Your task to perform on an android device: Turn off the flashlight Image 0: 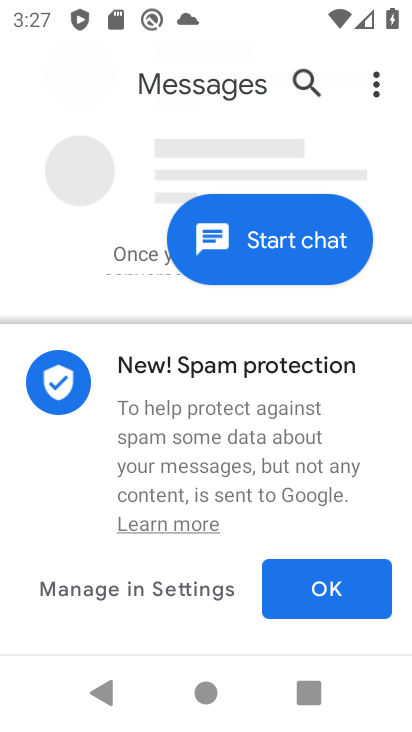
Step 0: press home button
Your task to perform on an android device: Turn off the flashlight Image 1: 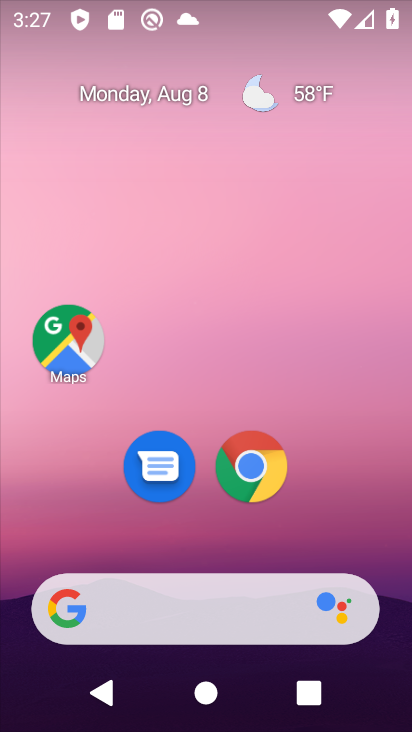
Step 1: drag from (173, 578) to (158, 124)
Your task to perform on an android device: Turn off the flashlight Image 2: 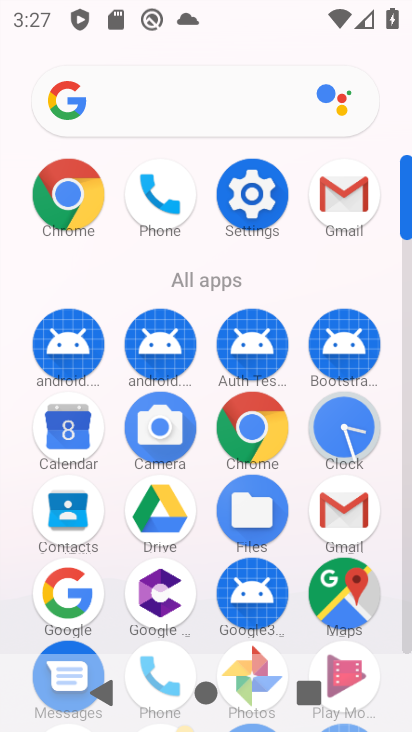
Step 2: click (241, 178)
Your task to perform on an android device: Turn off the flashlight Image 3: 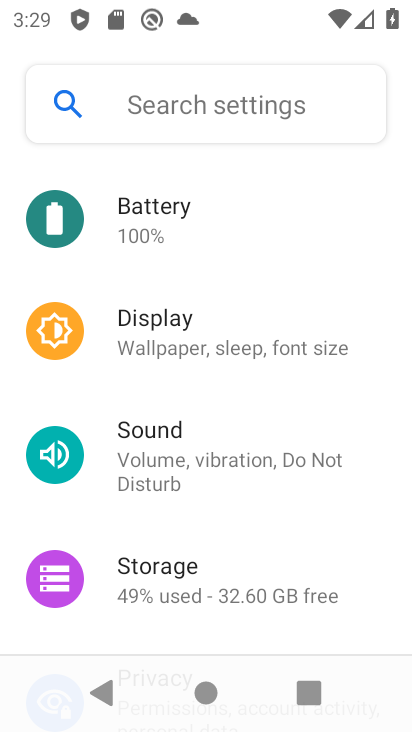
Step 3: task complete